Your task to perform on an android device: Show me recent news Image 0: 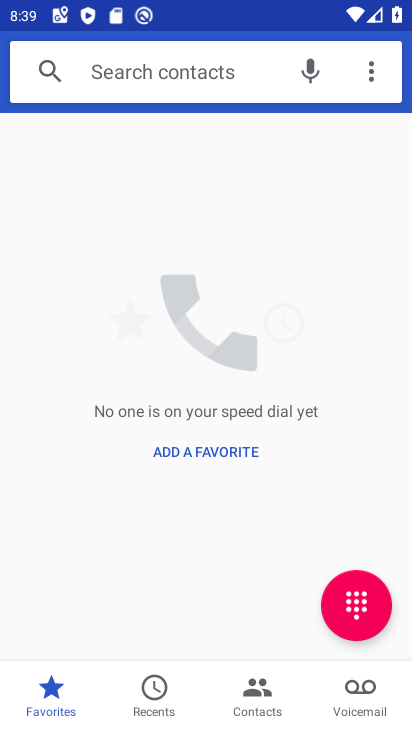
Step 0: press home button
Your task to perform on an android device: Show me recent news Image 1: 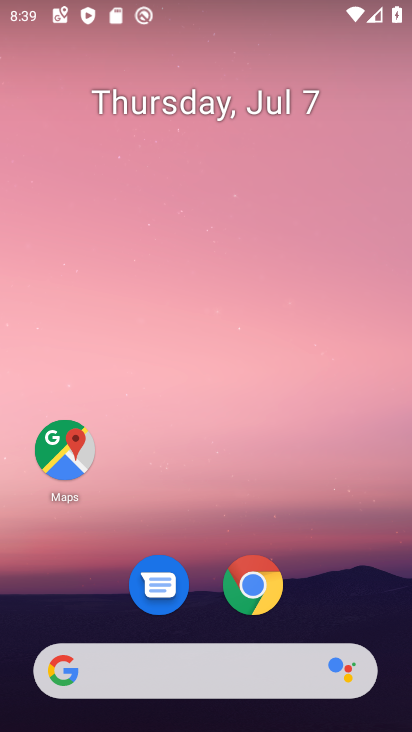
Step 1: click (173, 674)
Your task to perform on an android device: Show me recent news Image 2: 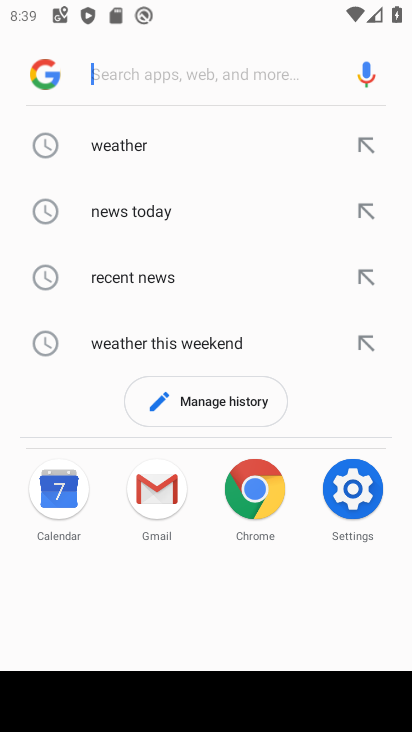
Step 2: click (100, 272)
Your task to perform on an android device: Show me recent news Image 3: 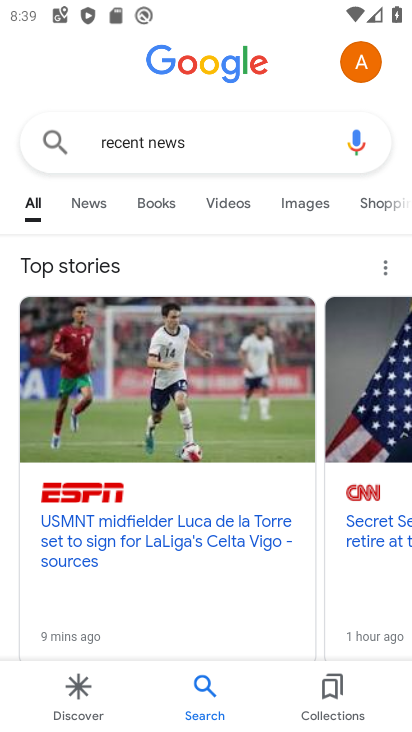
Step 3: task complete